Your task to perform on an android device: turn off picture-in-picture Image 0: 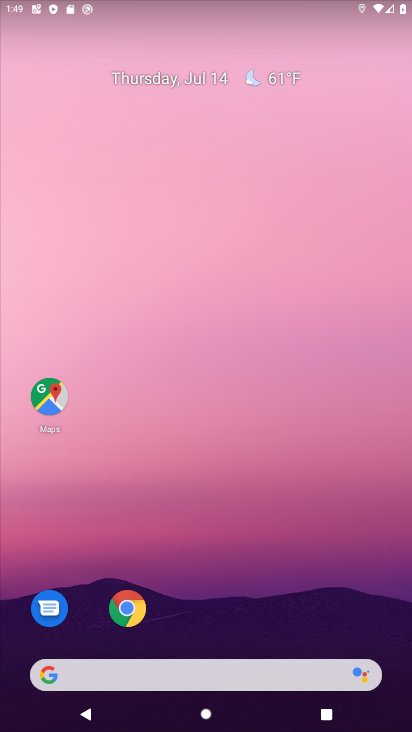
Step 0: click (127, 608)
Your task to perform on an android device: turn off picture-in-picture Image 1: 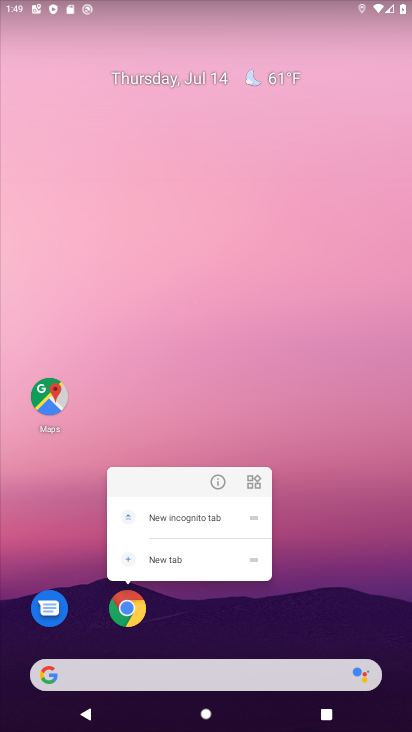
Step 1: click (217, 480)
Your task to perform on an android device: turn off picture-in-picture Image 2: 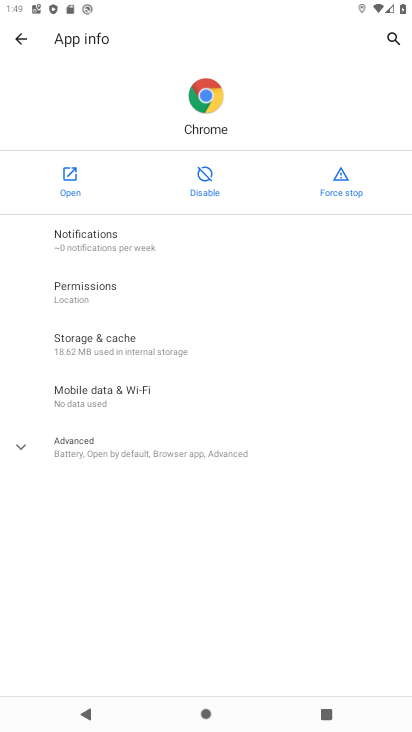
Step 2: click (171, 448)
Your task to perform on an android device: turn off picture-in-picture Image 3: 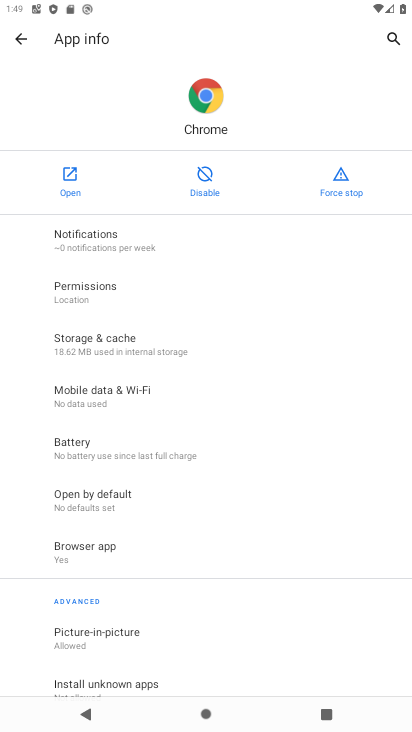
Step 3: drag from (137, 577) to (202, 490)
Your task to perform on an android device: turn off picture-in-picture Image 4: 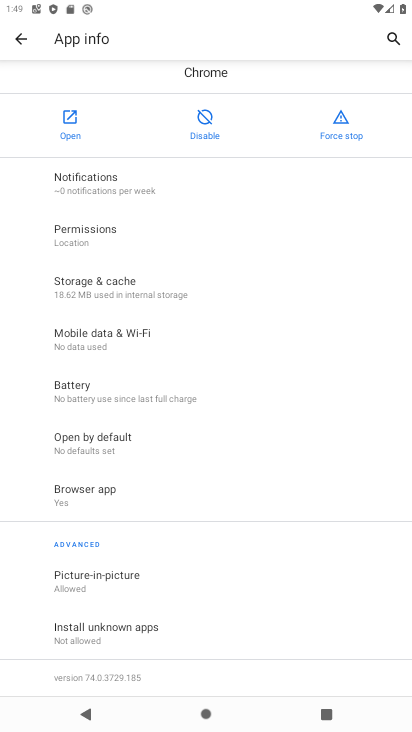
Step 4: click (106, 576)
Your task to perform on an android device: turn off picture-in-picture Image 5: 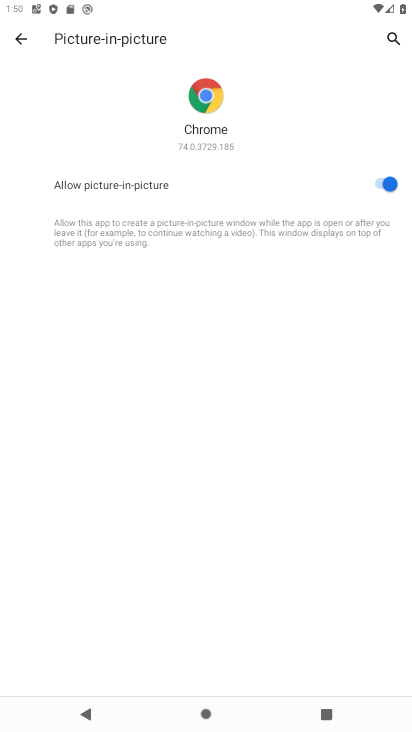
Step 5: click (380, 188)
Your task to perform on an android device: turn off picture-in-picture Image 6: 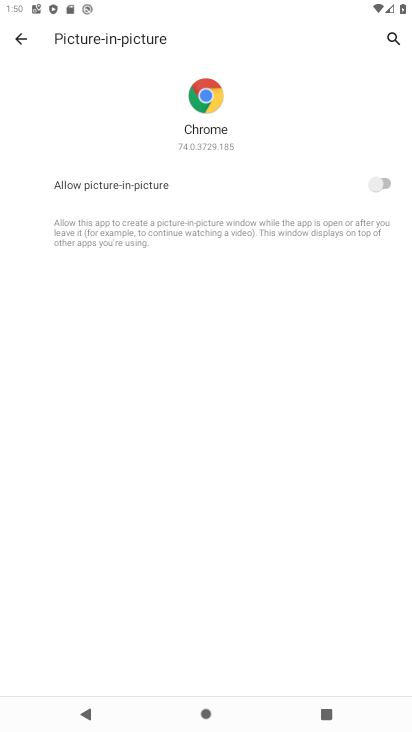
Step 6: task complete